Your task to perform on an android device: Go to location settings Image 0: 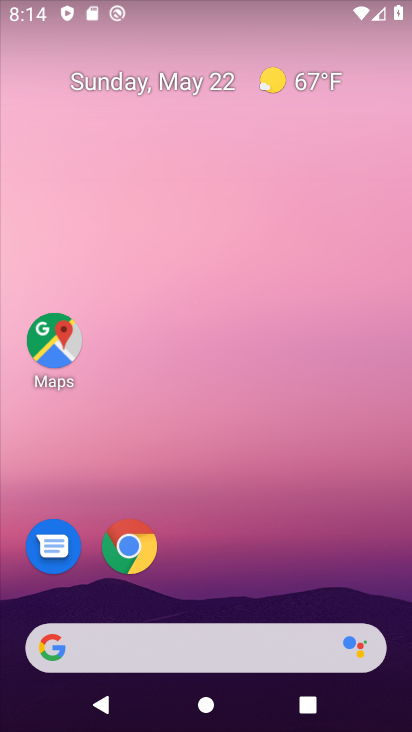
Step 0: drag from (200, 592) to (311, 31)
Your task to perform on an android device: Go to location settings Image 1: 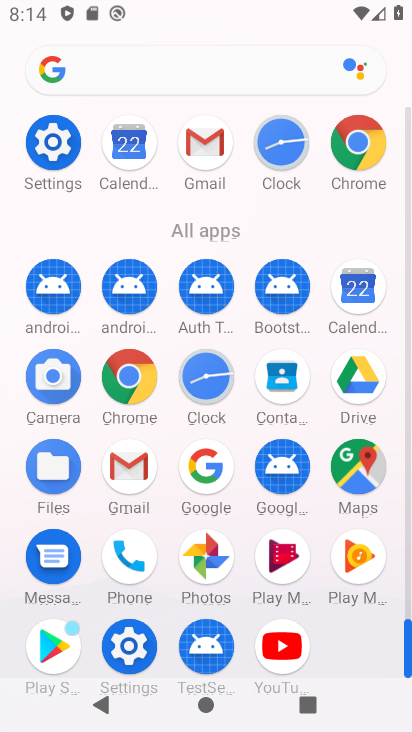
Step 1: click (129, 650)
Your task to perform on an android device: Go to location settings Image 2: 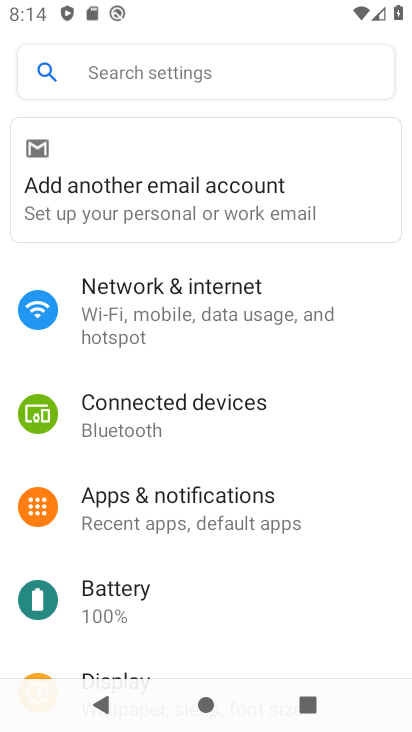
Step 2: drag from (192, 553) to (252, 220)
Your task to perform on an android device: Go to location settings Image 3: 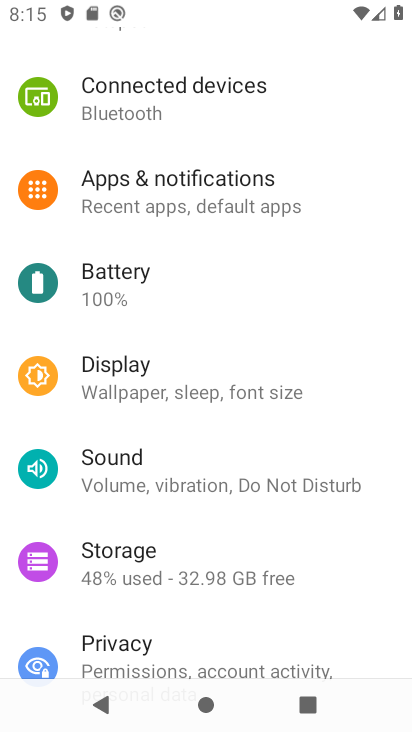
Step 3: drag from (199, 548) to (243, 196)
Your task to perform on an android device: Go to location settings Image 4: 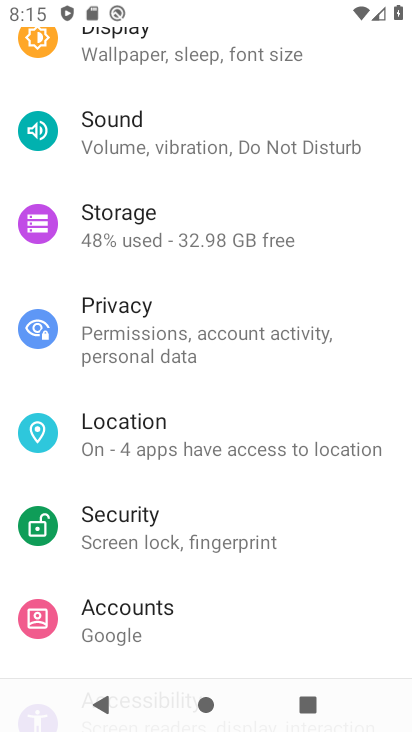
Step 4: click (203, 446)
Your task to perform on an android device: Go to location settings Image 5: 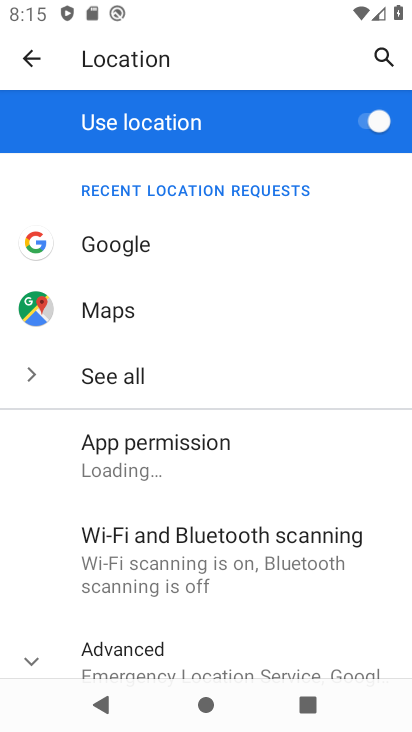
Step 5: task complete